Your task to perform on an android device: empty trash in google photos Image 0: 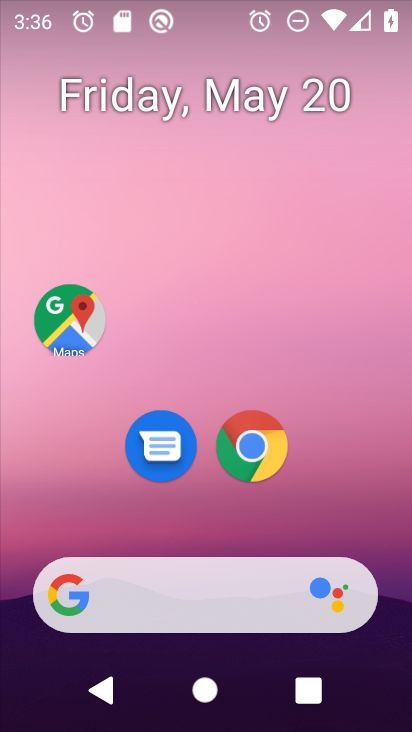
Step 0: drag from (380, 531) to (397, 21)
Your task to perform on an android device: empty trash in google photos Image 1: 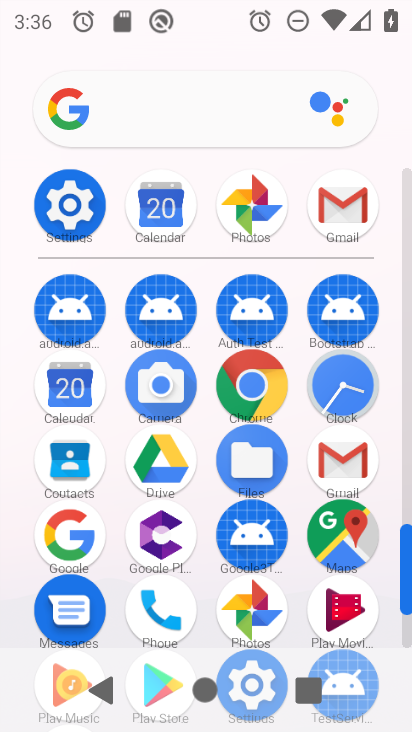
Step 1: click (248, 209)
Your task to perform on an android device: empty trash in google photos Image 2: 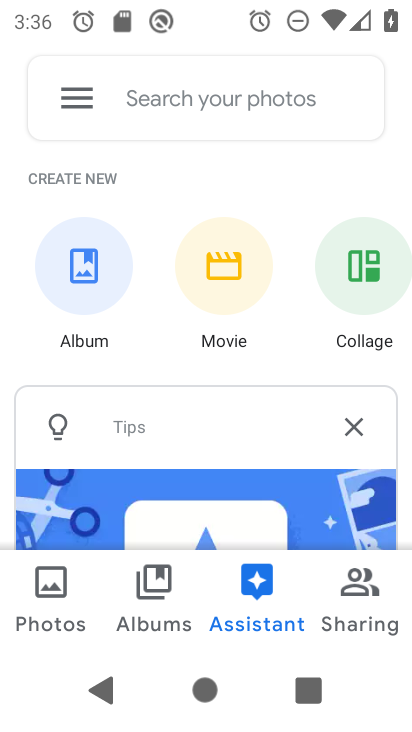
Step 2: click (73, 94)
Your task to perform on an android device: empty trash in google photos Image 3: 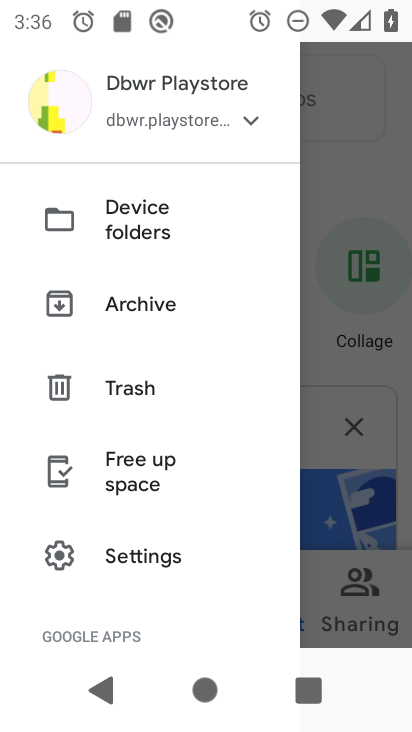
Step 3: click (138, 387)
Your task to perform on an android device: empty trash in google photos Image 4: 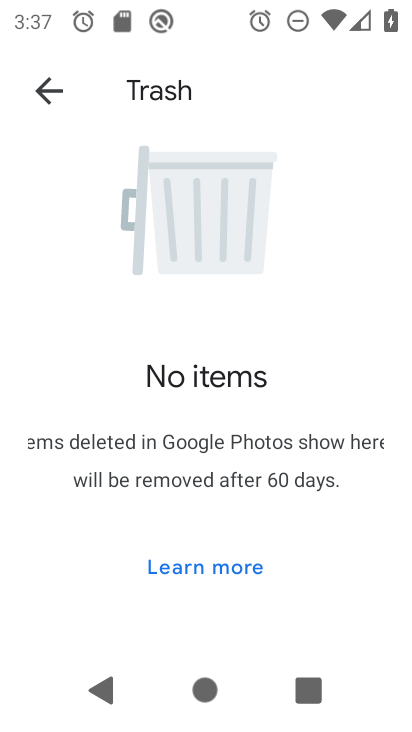
Step 4: task complete